Your task to perform on an android device: Set the phone to "Do not disturb". Image 0: 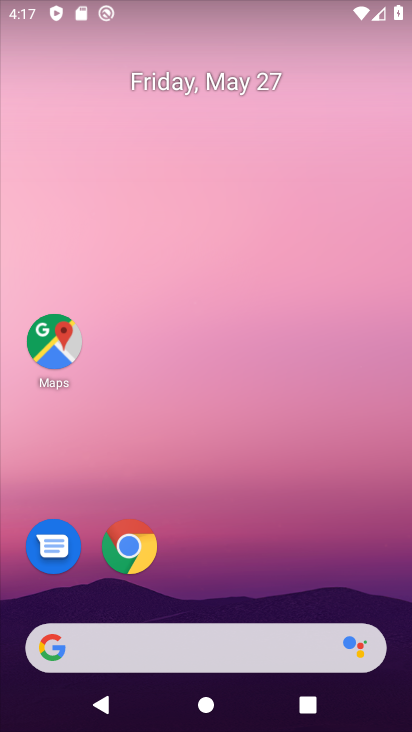
Step 0: drag from (326, 538) to (294, 25)
Your task to perform on an android device: Set the phone to "Do not disturb". Image 1: 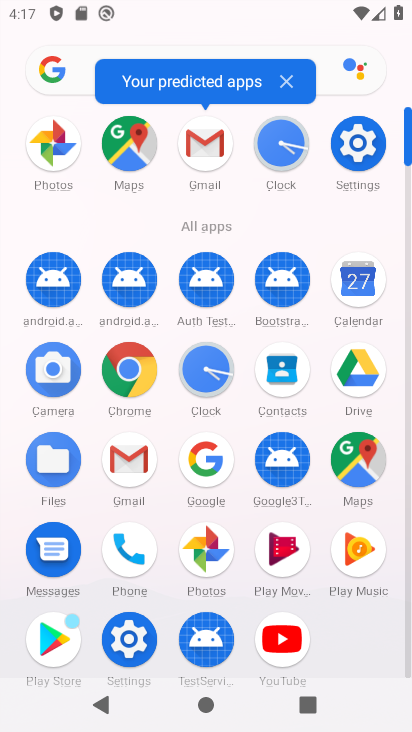
Step 1: click (344, 170)
Your task to perform on an android device: Set the phone to "Do not disturb". Image 2: 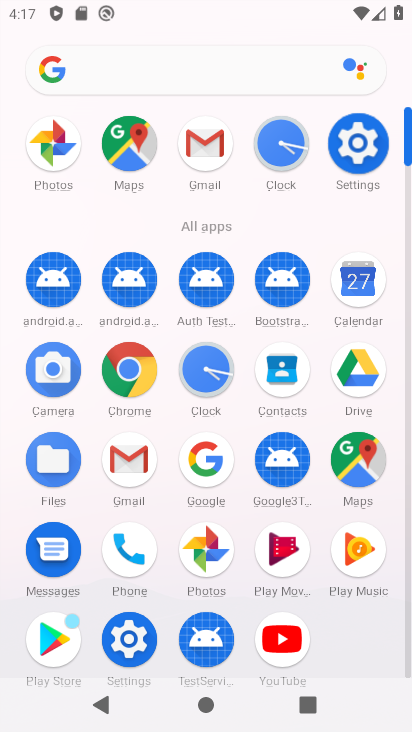
Step 2: click (344, 170)
Your task to perform on an android device: Set the phone to "Do not disturb". Image 3: 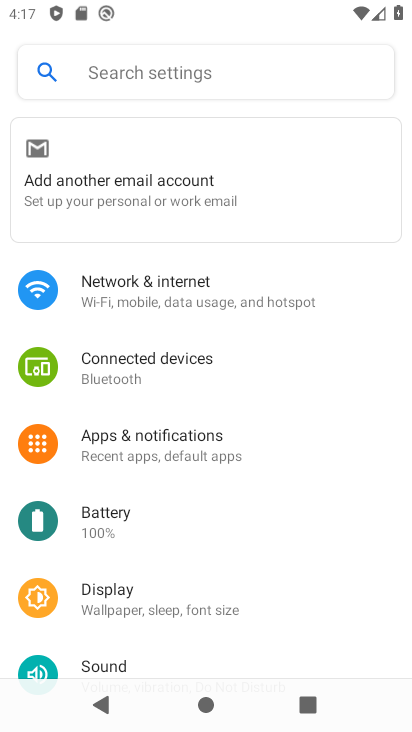
Step 3: click (195, 644)
Your task to perform on an android device: Set the phone to "Do not disturb". Image 4: 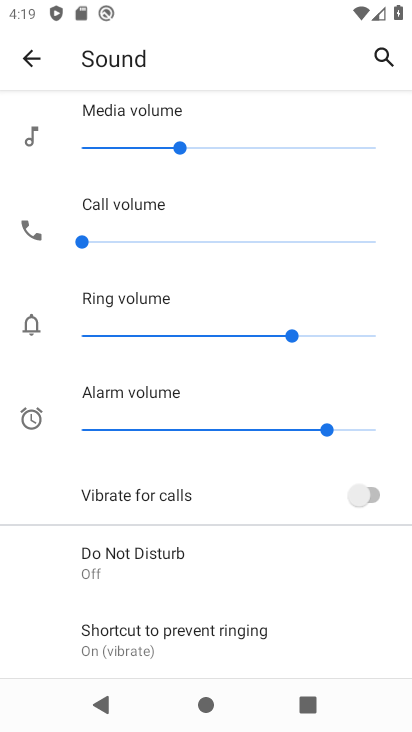
Step 4: click (229, 577)
Your task to perform on an android device: Set the phone to "Do not disturb". Image 5: 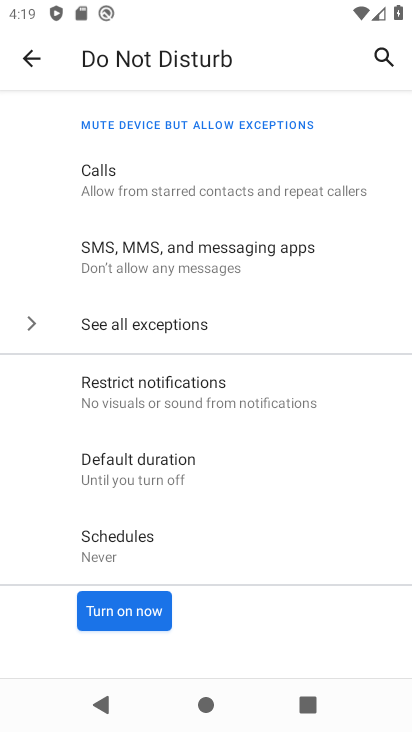
Step 5: click (138, 611)
Your task to perform on an android device: Set the phone to "Do not disturb". Image 6: 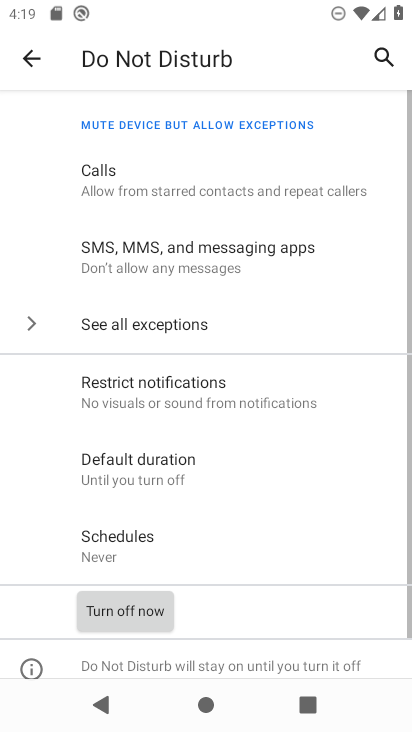
Step 6: task complete